Your task to perform on an android device: change your default location settings in chrome Image 0: 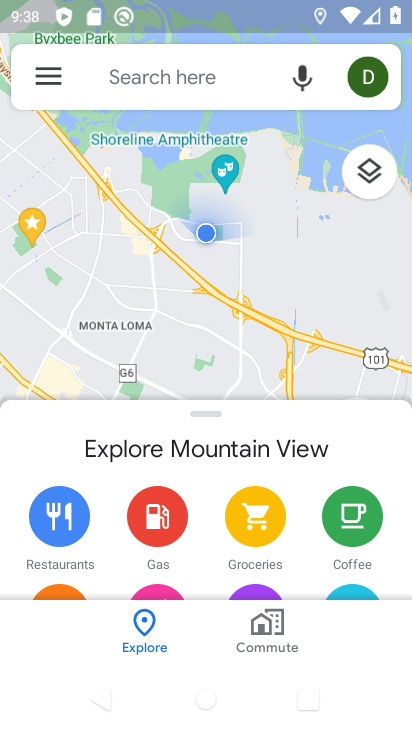
Step 0: press home button
Your task to perform on an android device: change your default location settings in chrome Image 1: 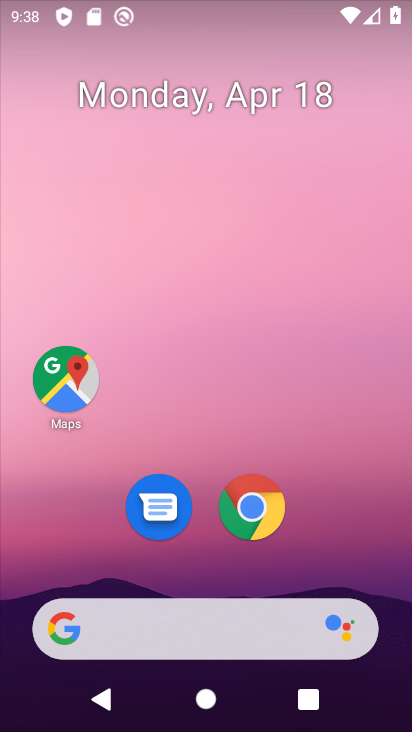
Step 1: click (256, 508)
Your task to perform on an android device: change your default location settings in chrome Image 2: 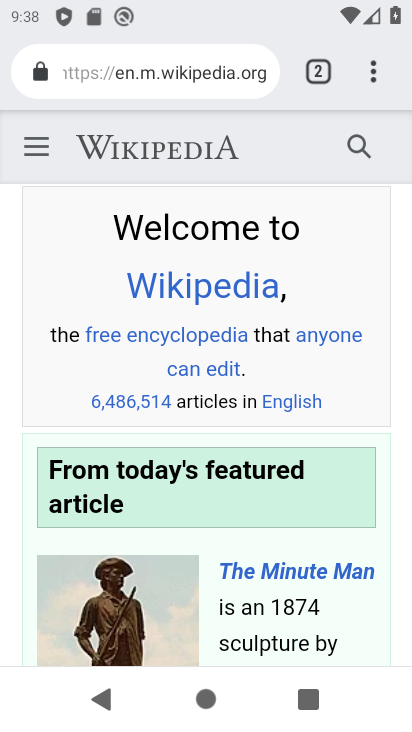
Step 2: click (368, 60)
Your task to perform on an android device: change your default location settings in chrome Image 3: 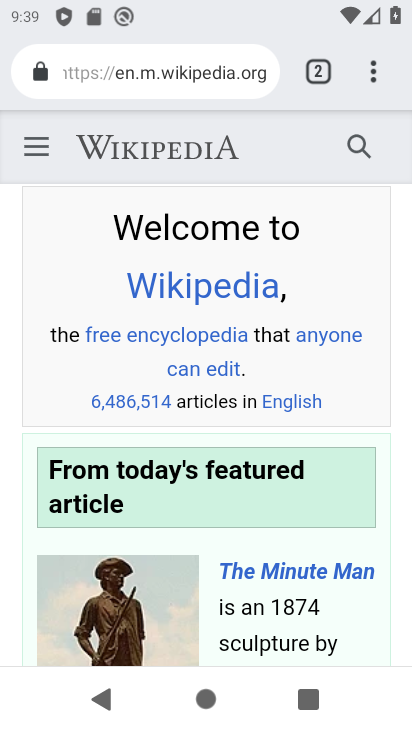
Step 3: click (370, 87)
Your task to perform on an android device: change your default location settings in chrome Image 4: 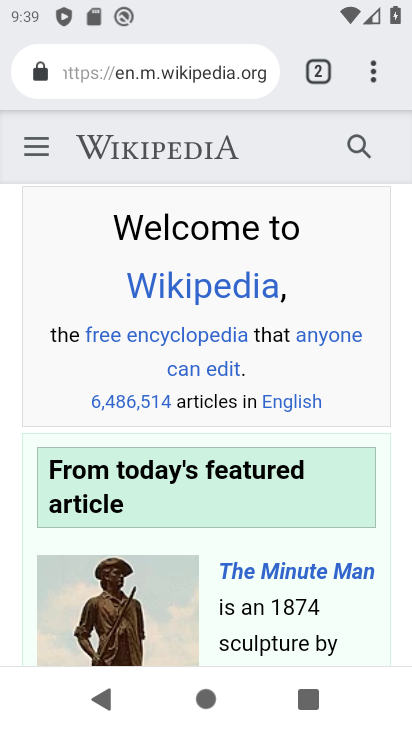
Step 4: drag from (365, 79) to (213, 514)
Your task to perform on an android device: change your default location settings in chrome Image 5: 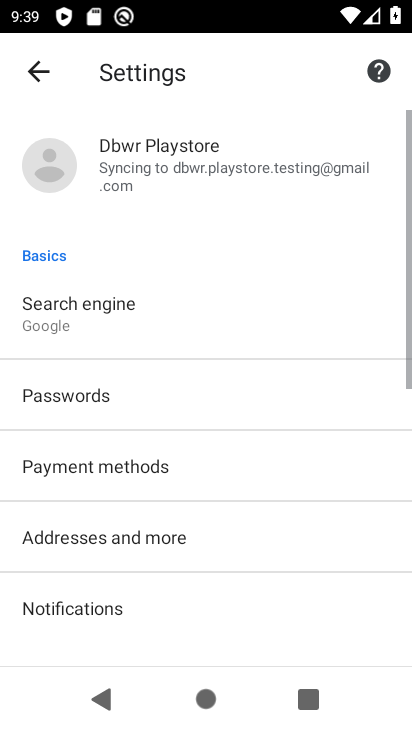
Step 5: drag from (216, 574) to (189, 166)
Your task to perform on an android device: change your default location settings in chrome Image 6: 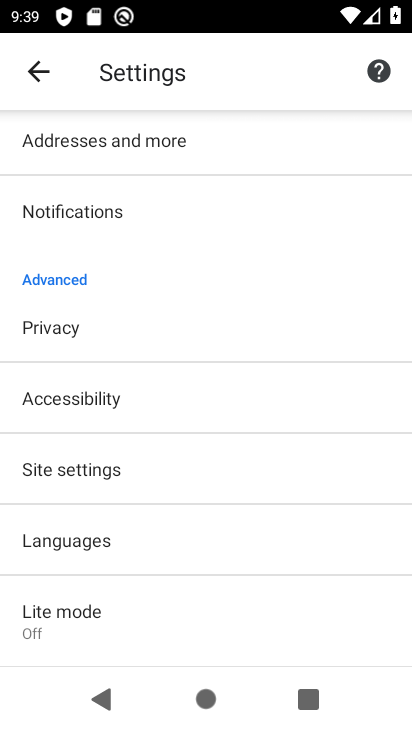
Step 6: click (125, 568)
Your task to perform on an android device: change your default location settings in chrome Image 7: 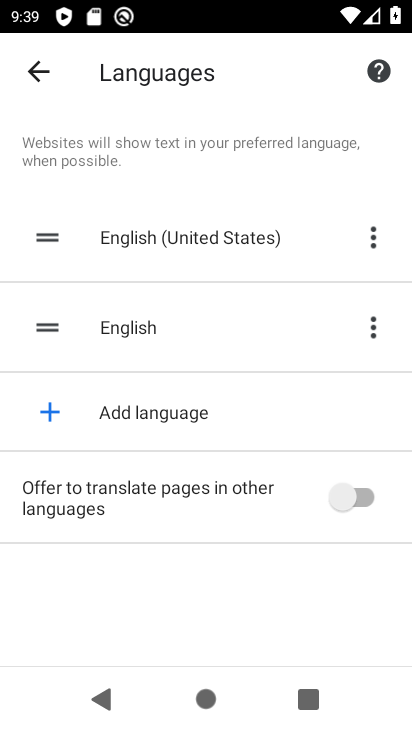
Step 7: click (30, 57)
Your task to perform on an android device: change your default location settings in chrome Image 8: 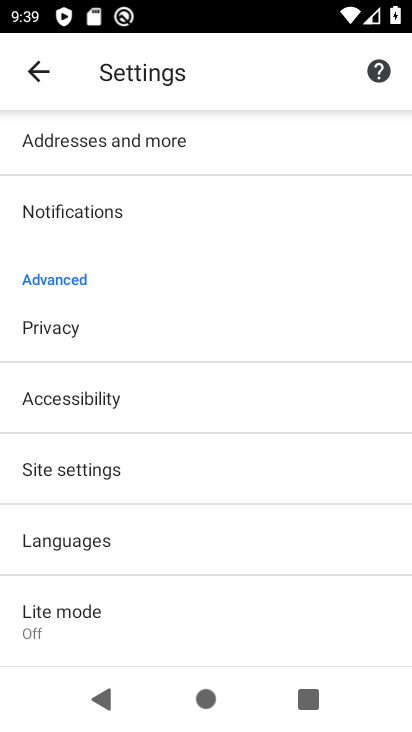
Step 8: click (124, 461)
Your task to perform on an android device: change your default location settings in chrome Image 9: 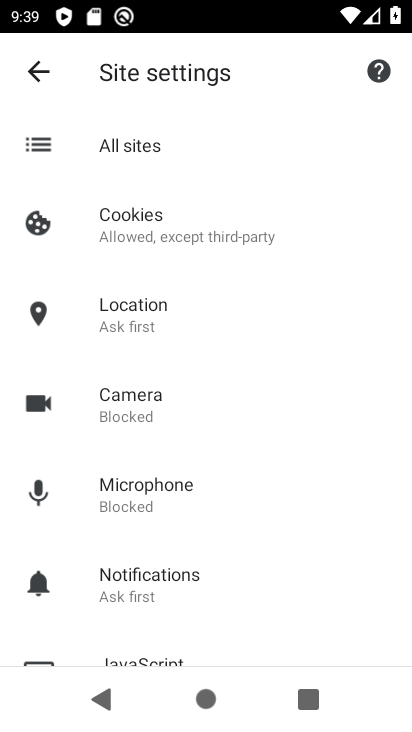
Step 9: click (143, 318)
Your task to perform on an android device: change your default location settings in chrome Image 10: 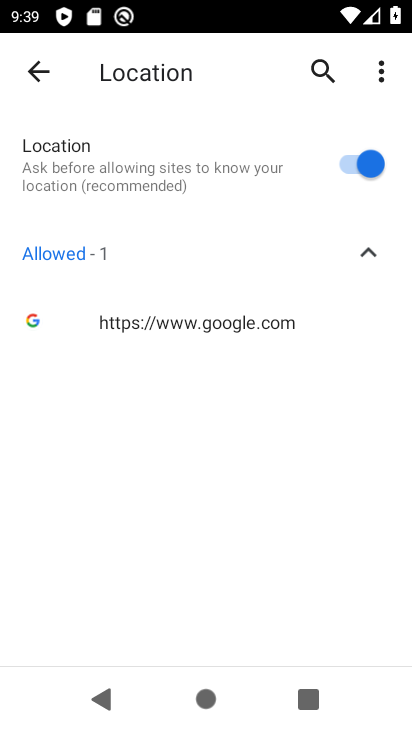
Step 10: click (367, 154)
Your task to perform on an android device: change your default location settings in chrome Image 11: 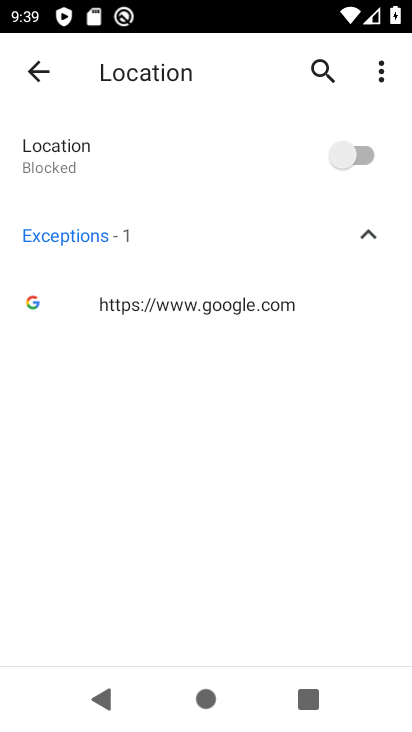
Step 11: task complete